Your task to perform on an android device: manage bookmarks in the chrome app Image 0: 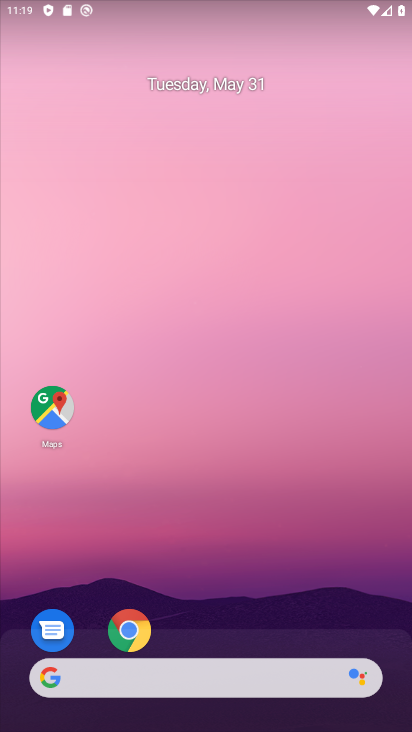
Step 0: click (131, 626)
Your task to perform on an android device: manage bookmarks in the chrome app Image 1: 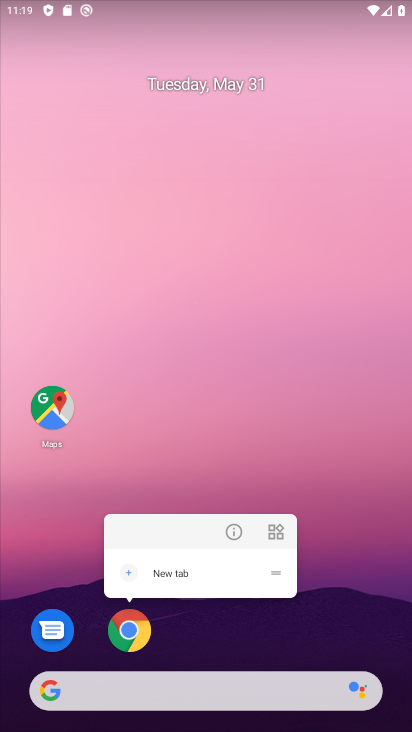
Step 1: click (127, 640)
Your task to perform on an android device: manage bookmarks in the chrome app Image 2: 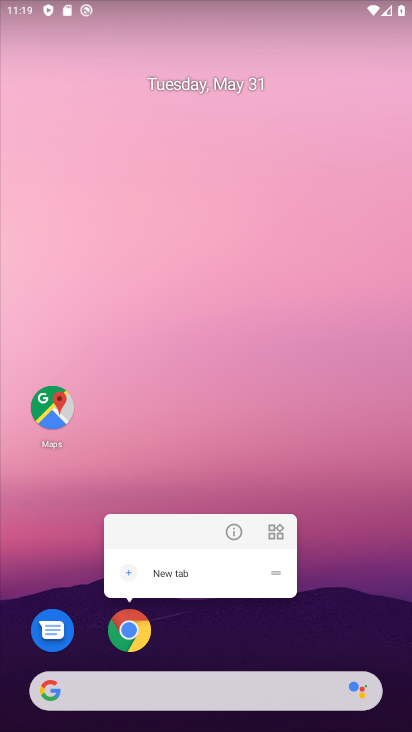
Step 2: click (126, 639)
Your task to perform on an android device: manage bookmarks in the chrome app Image 3: 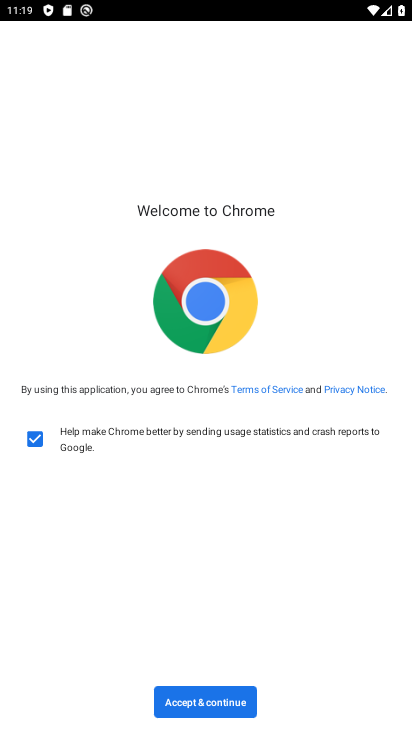
Step 3: click (191, 704)
Your task to perform on an android device: manage bookmarks in the chrome app Image 4: 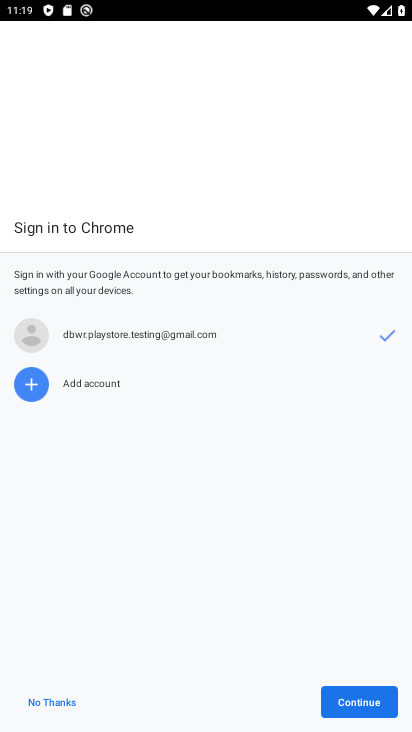
Step 4: click (373, 703)
Your task to perform on an android device: manage bookmarks in the chrome app Image 5: 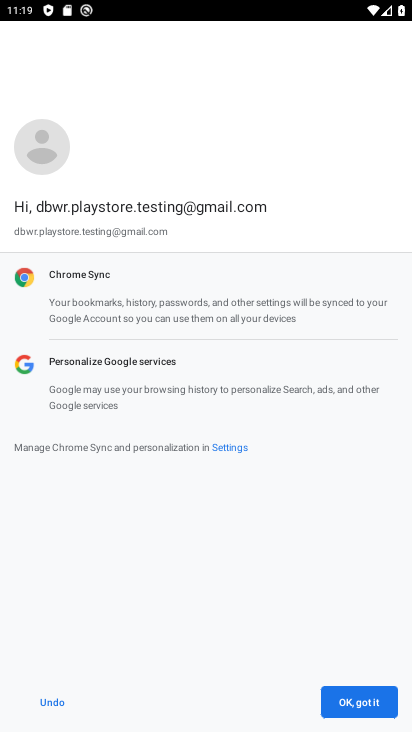
Step 5: click (338, 704)
Your task to perform on an android device: manage bookmarks in the chrome app Image 6: 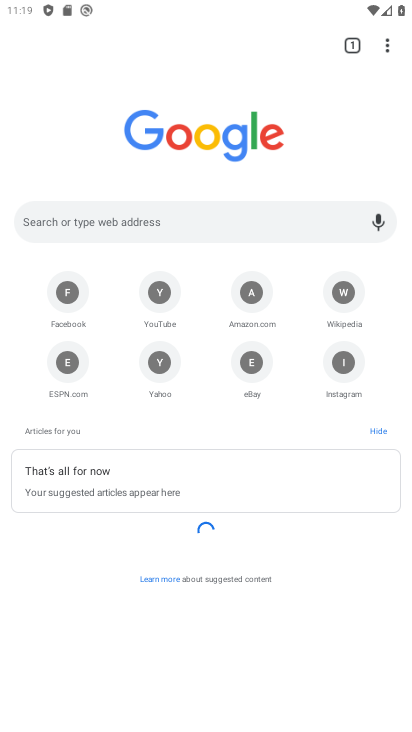
Step 6: click (382, 42)
Your task to perform on an android device: manage bookmarks in the chrome app Image 7: 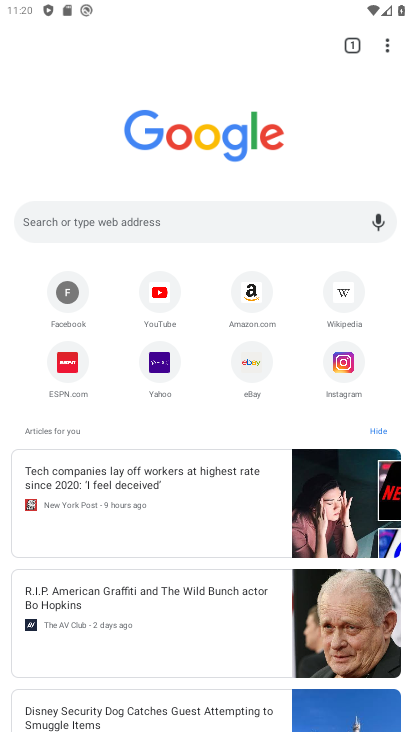
Step 7: task complete